Your task to perform on an android device: turn smart compose on in the gmail app Image 0: 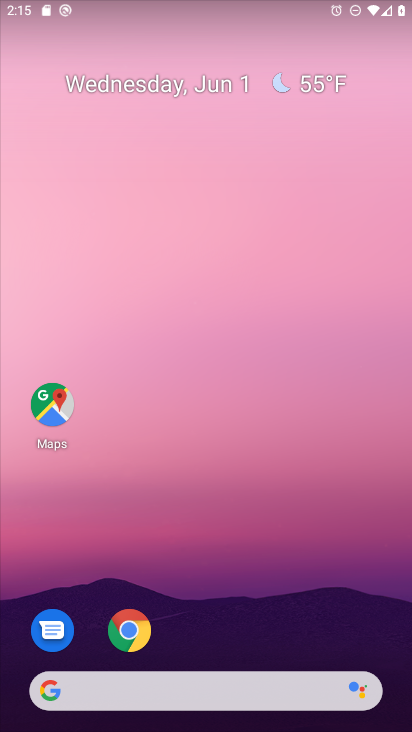
Step 0: drag from (344, 684) to (275, 9)
Your task to perform on an android device: turn smart compose on in the gmail app Image 1: 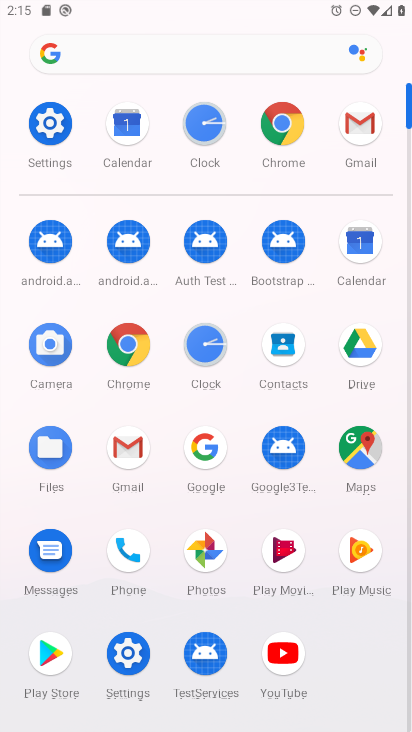
Step 1: click (120, 441)
Your task to perform on an android device: turn smart compose on in the gmail app Image 2: 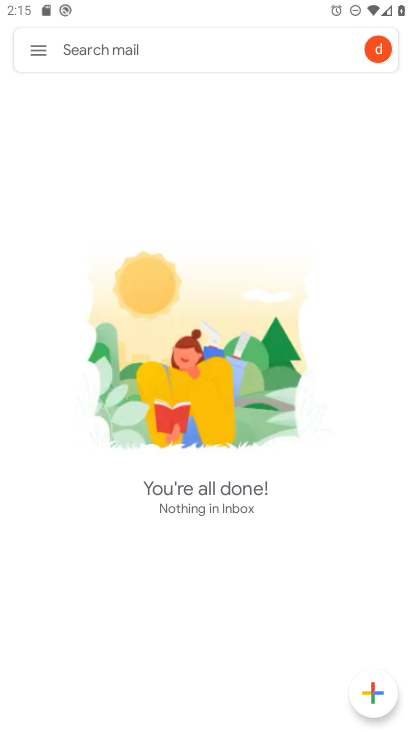
Step 2: click (42, 54)
Your task to perform on an android device: turn smart compose on in the gmail app Image 3: 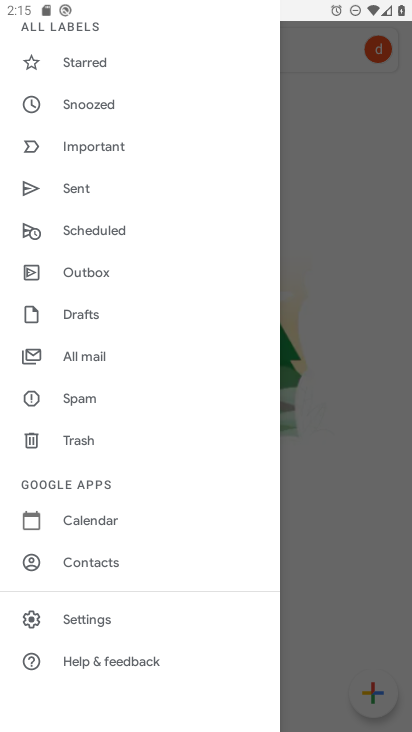
Step 3: click (105, 618)
Your task to perform on an android device: turn smart compose on in the gmail app Image 4: 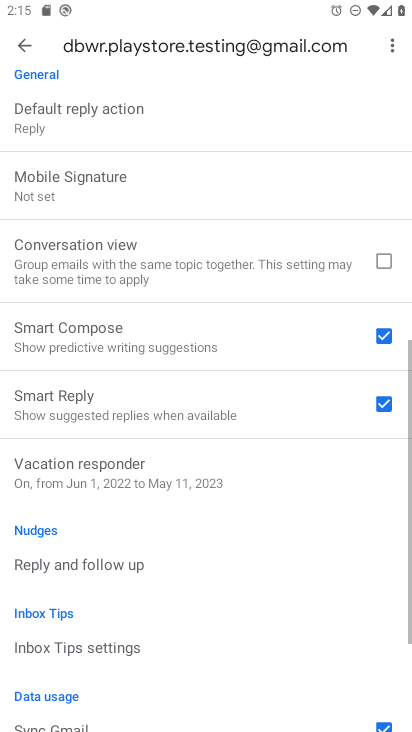
Step 4: task complete